Your task to perform on an android device: install app "Google News" Image 0: 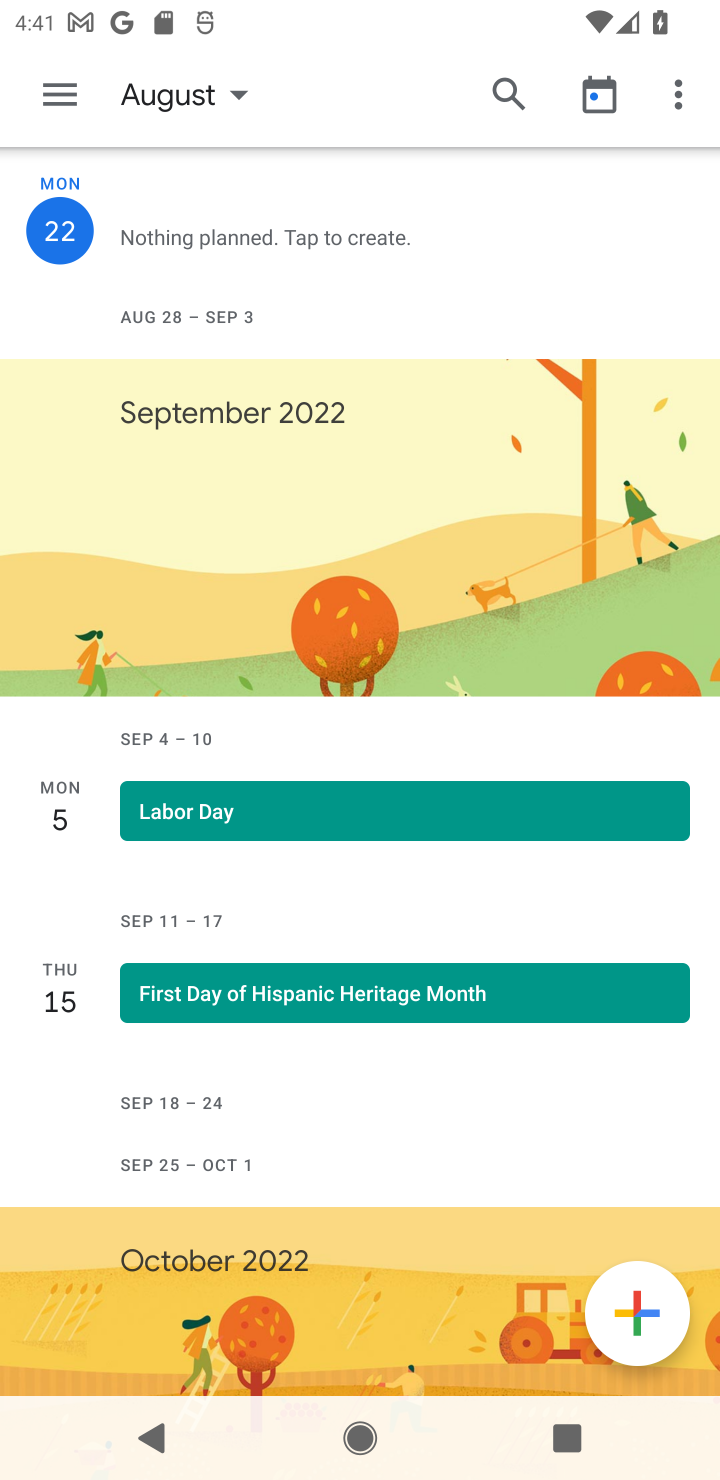
Step 0: press home button
Your task to perform on an android device: install app "Google News" Image 1: 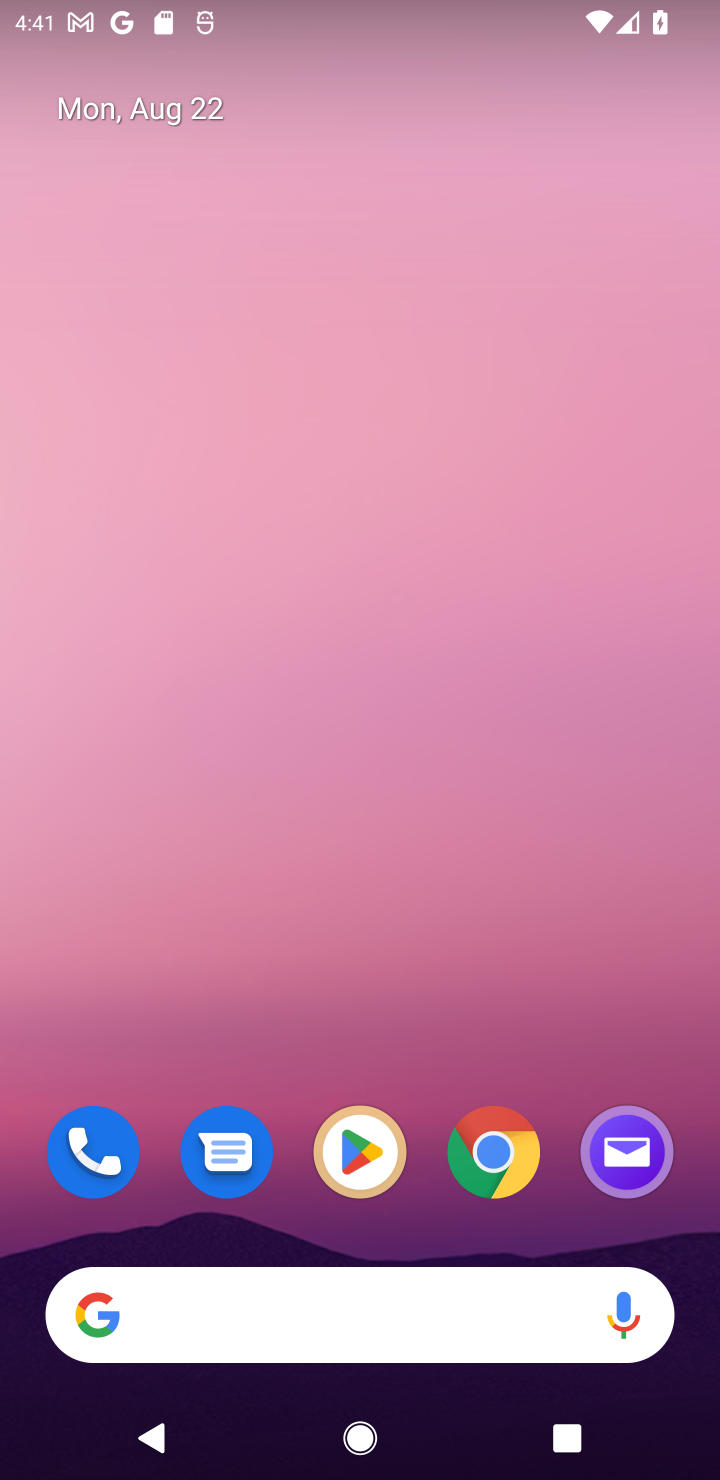
Step 1: click (348, 1176)
Your task to perform on an android device: install app "Google News" Image 2: 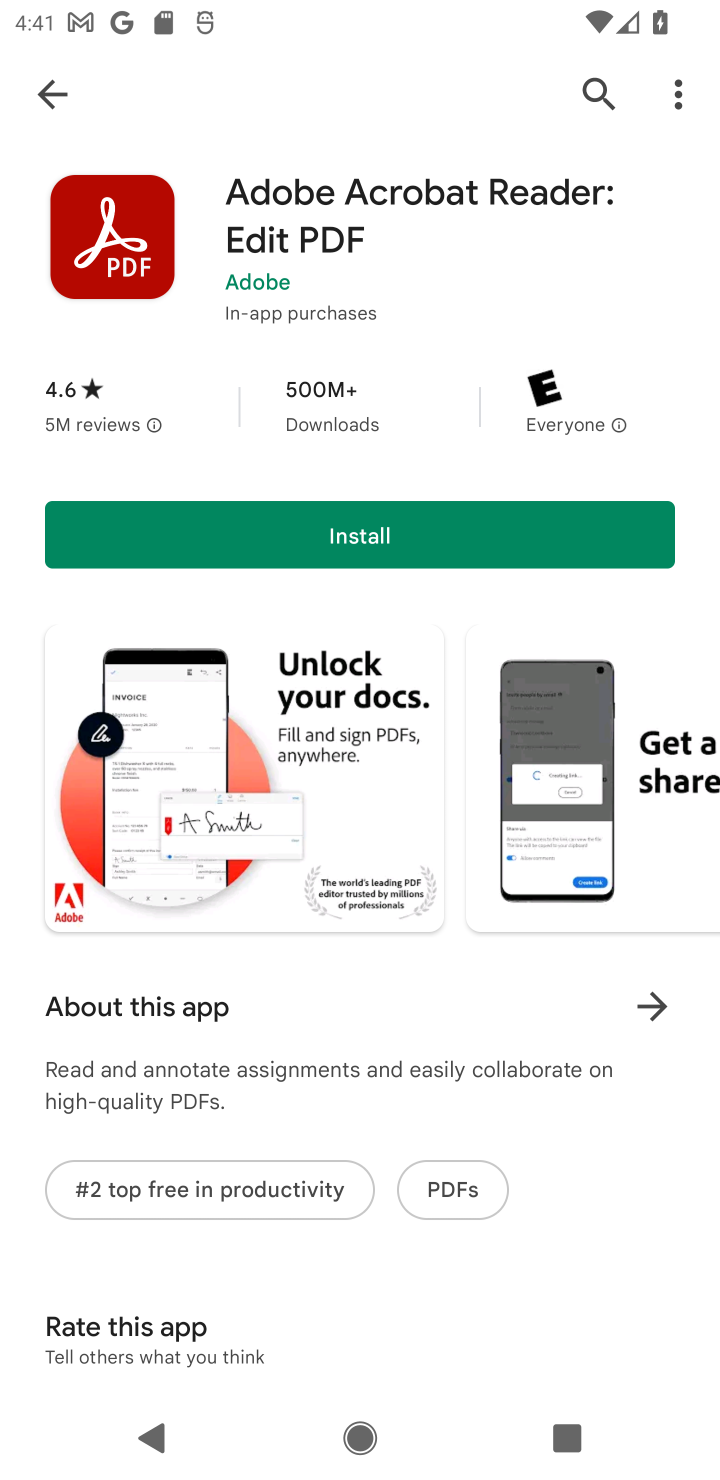
Step 2: click (34, 89)
Your task to perform on an android device: install app "Google News" Image 3: 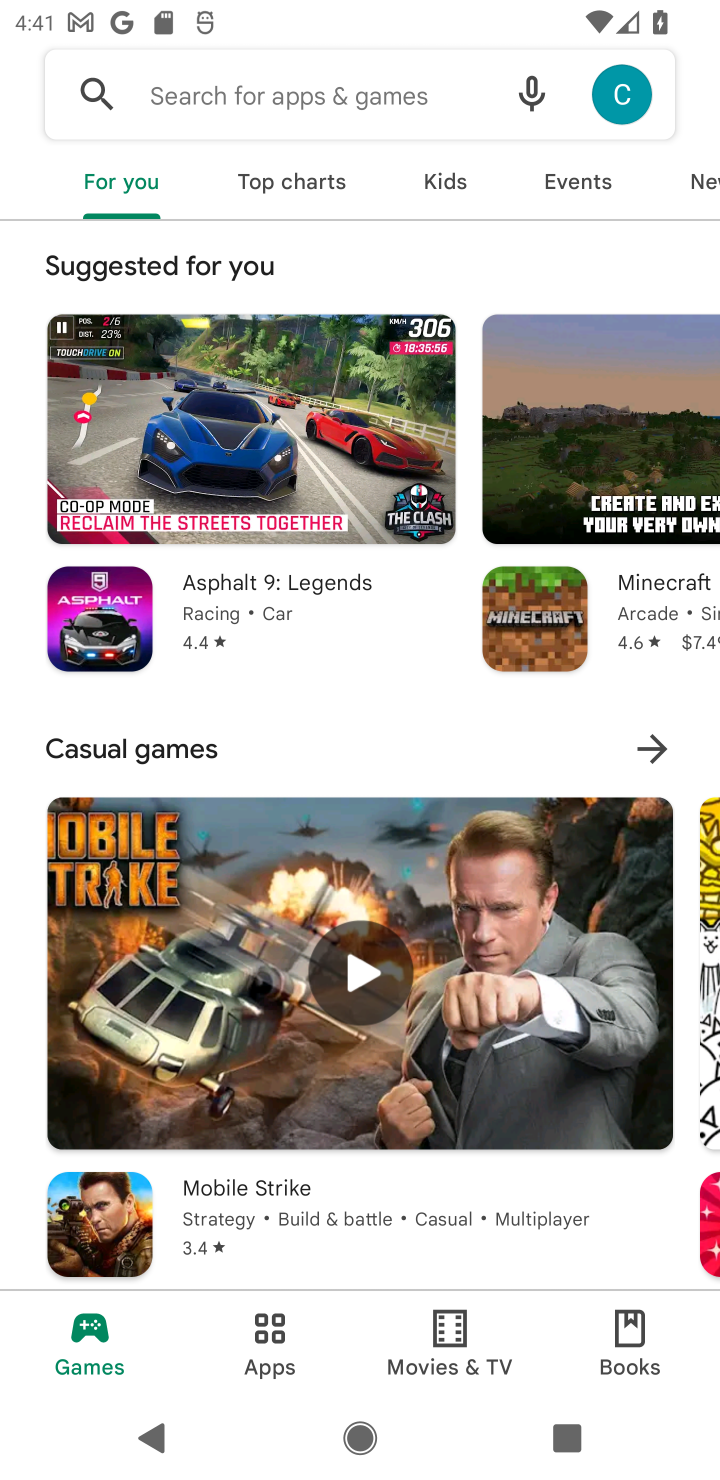
Step 3: click (298, 89)
Your task to perform on an android device: install app "Google News" Image 4: 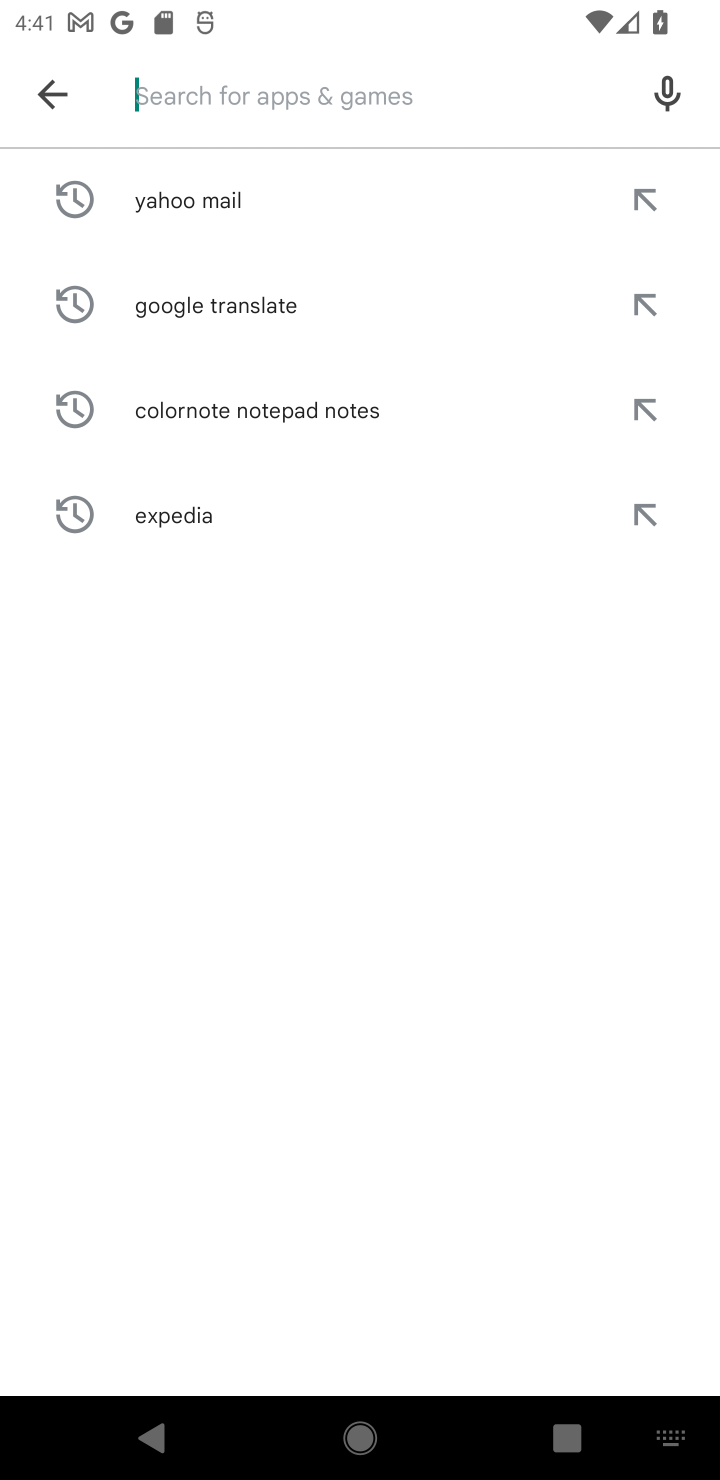
Step 4: type "Google News"
Your task to perform on an android device: install app "Google News" Image 5: 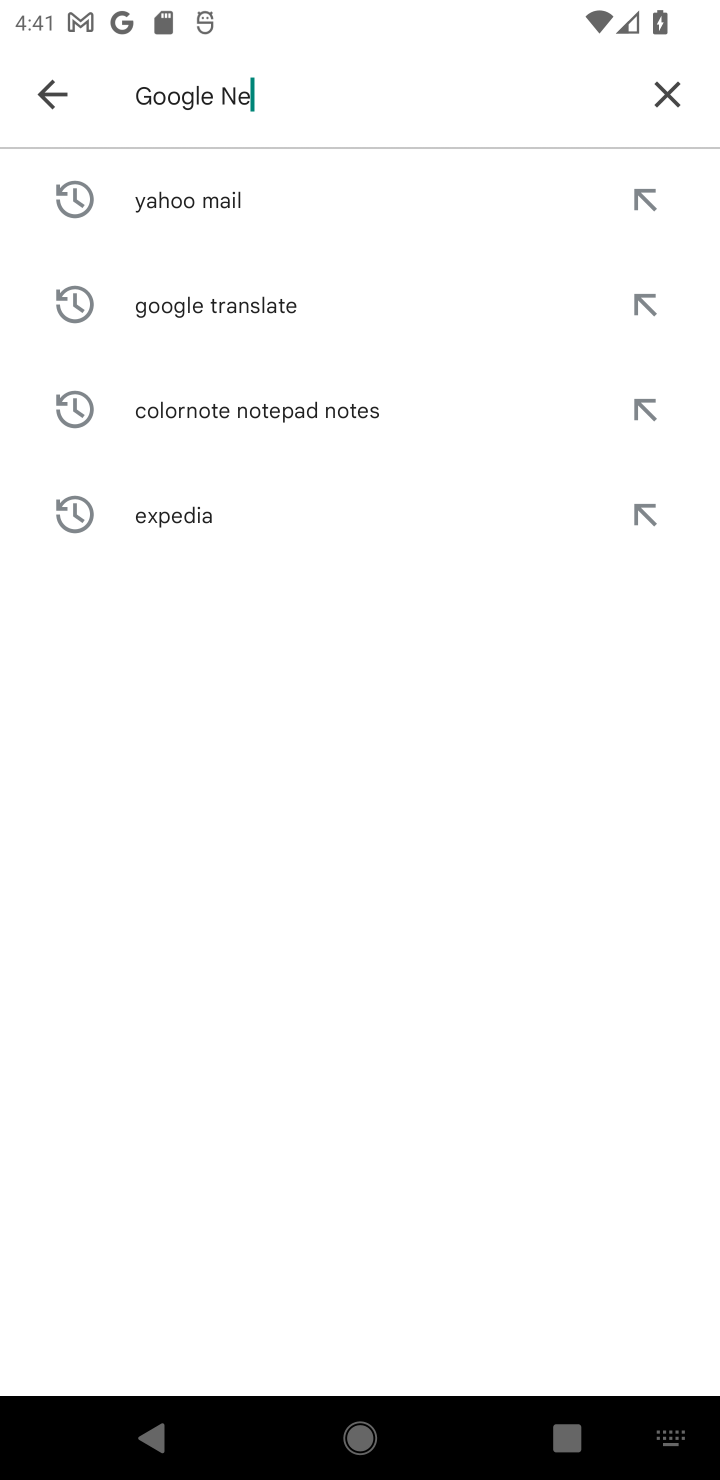
Step 5: type ""
Your task to perform on an android device: install app "Google News" Image 6: 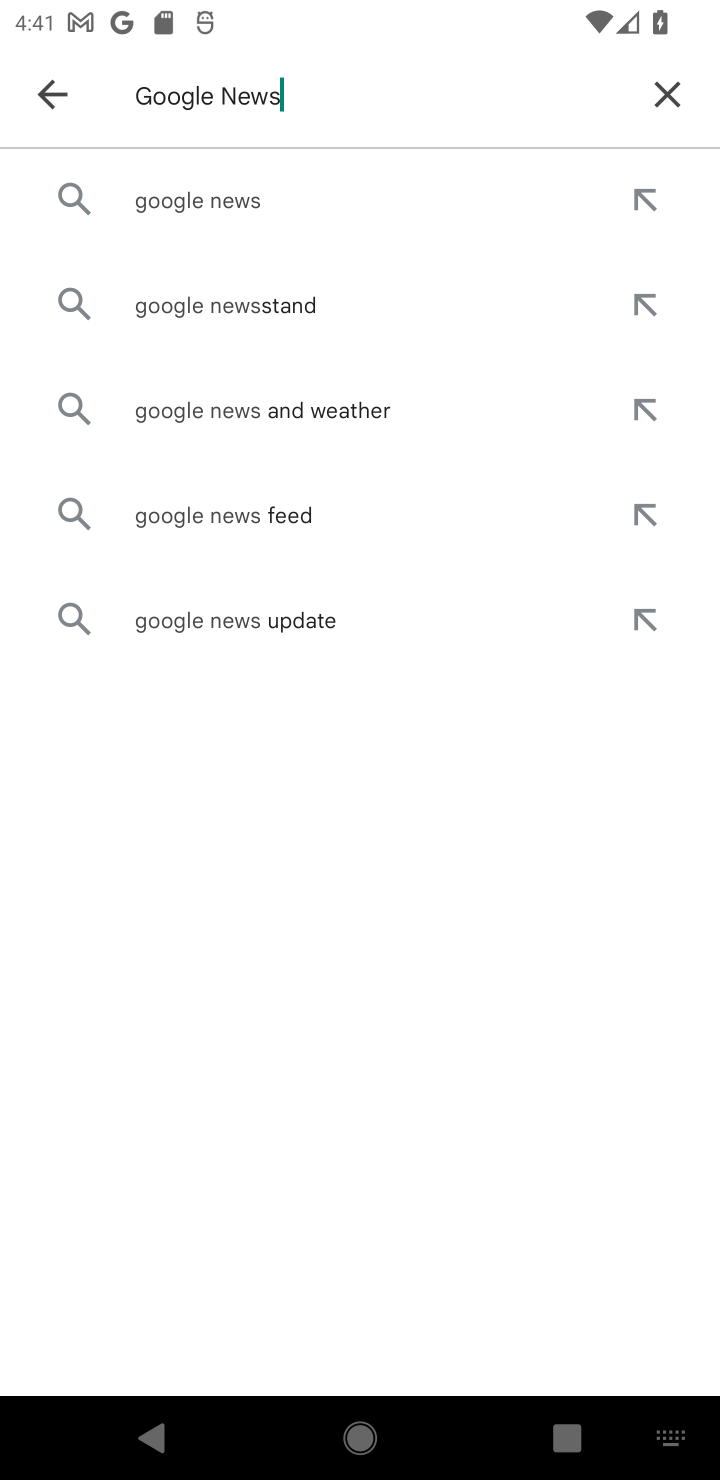
Step 6: click (153, 213)
Your task to perform on an android device: install app "Google News" Image 7: 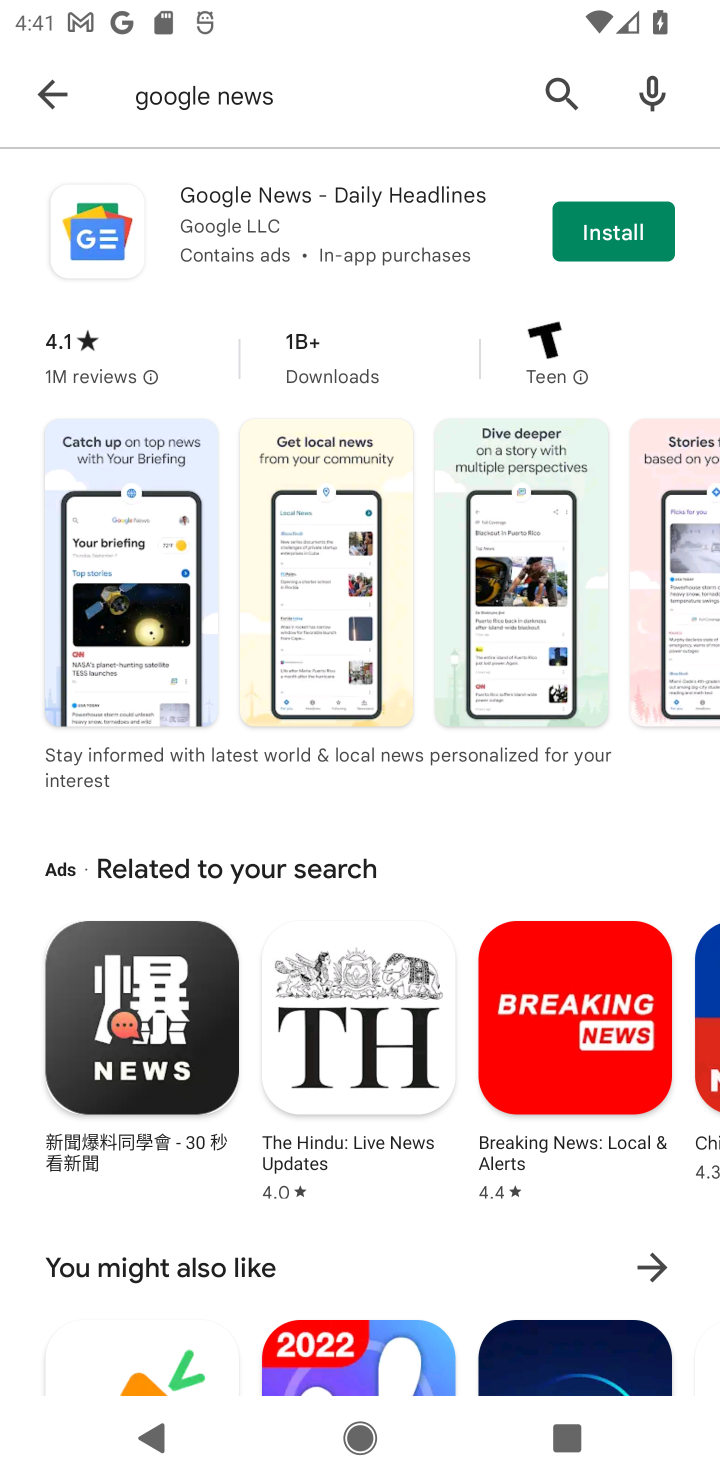
Step 7: click (617, 252)
Your task to perform on an android device: install app "Google News" Image 8: 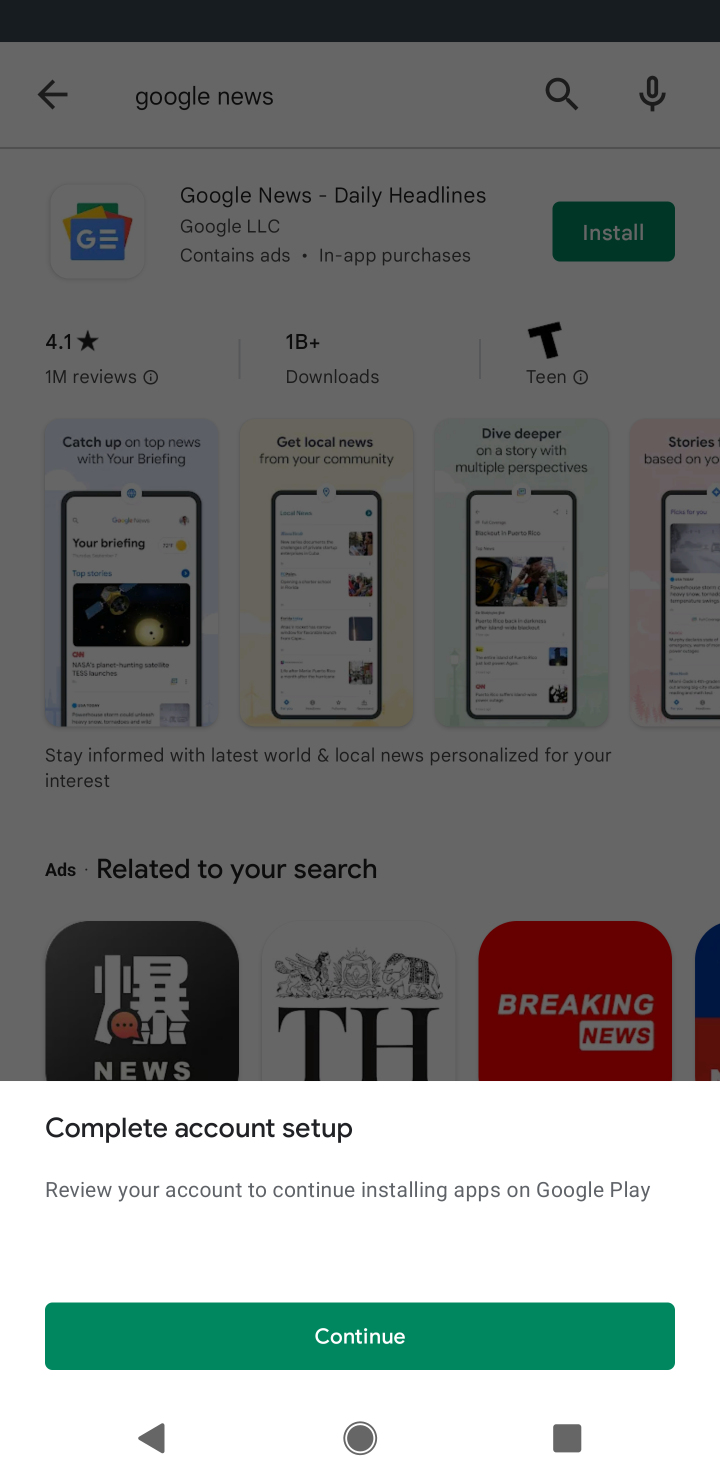
Step 8: click (420, 1315)
Your task to perform on an android device: install app "Google News" Image 9: 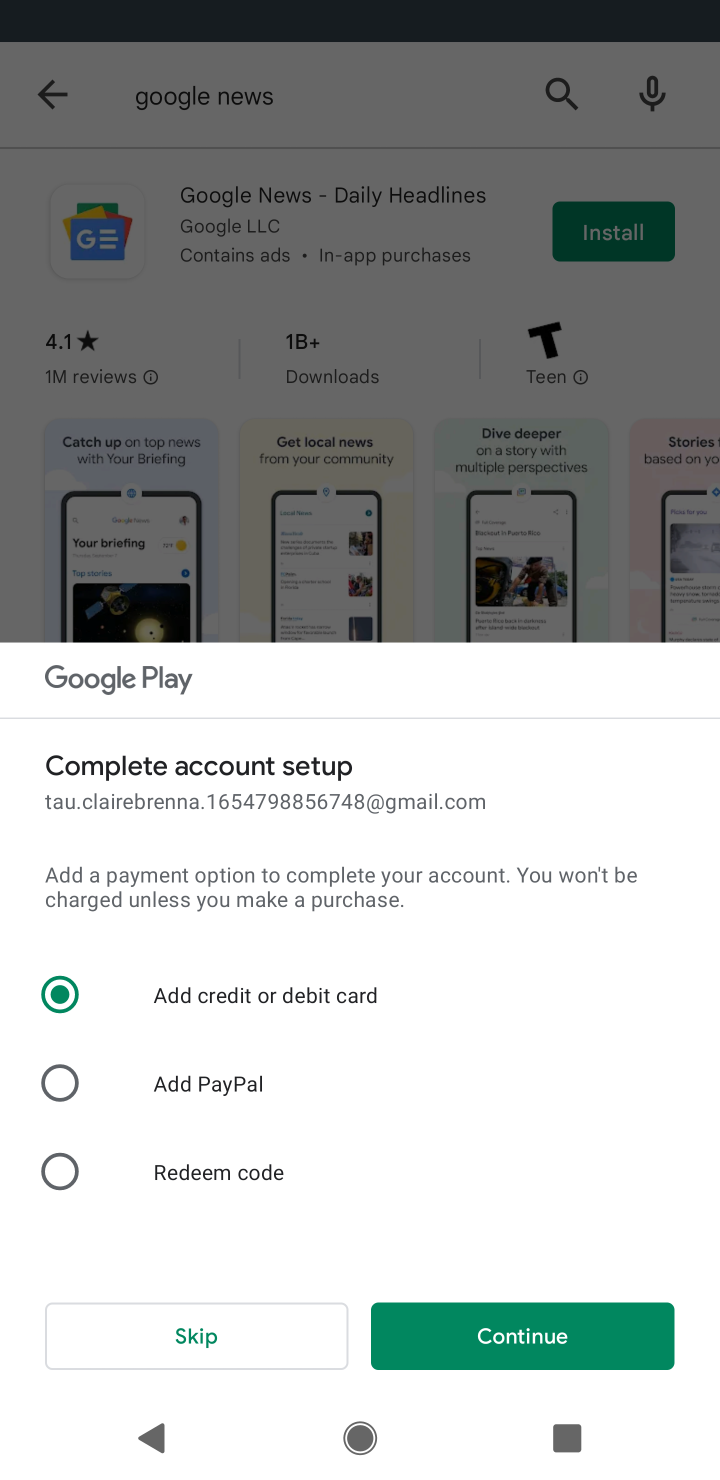
Step 9: click (190, 1340)
Your task to perform on an android device: install app "Google News" Image 10: 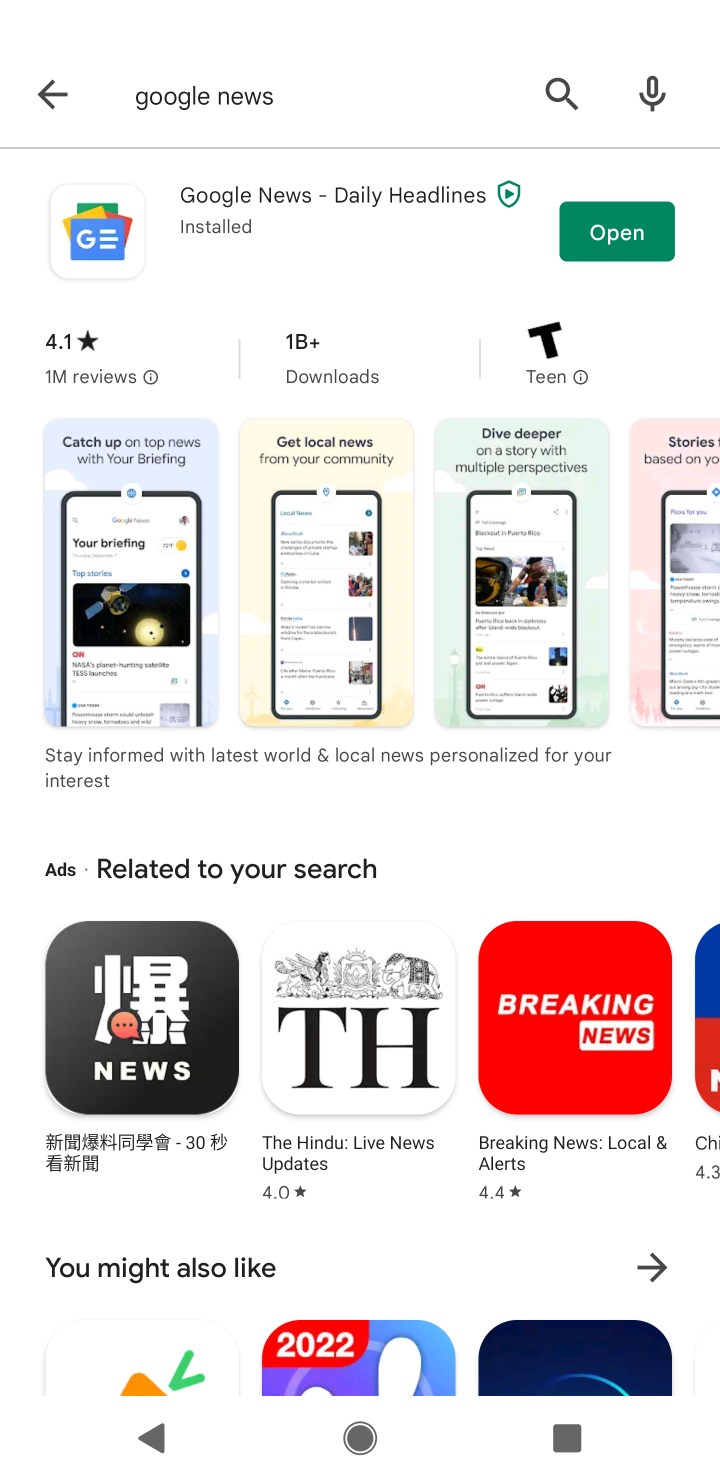
Step 10: click (584, 248)
Your task to perform on an android device: install app "Google News" Image 11: 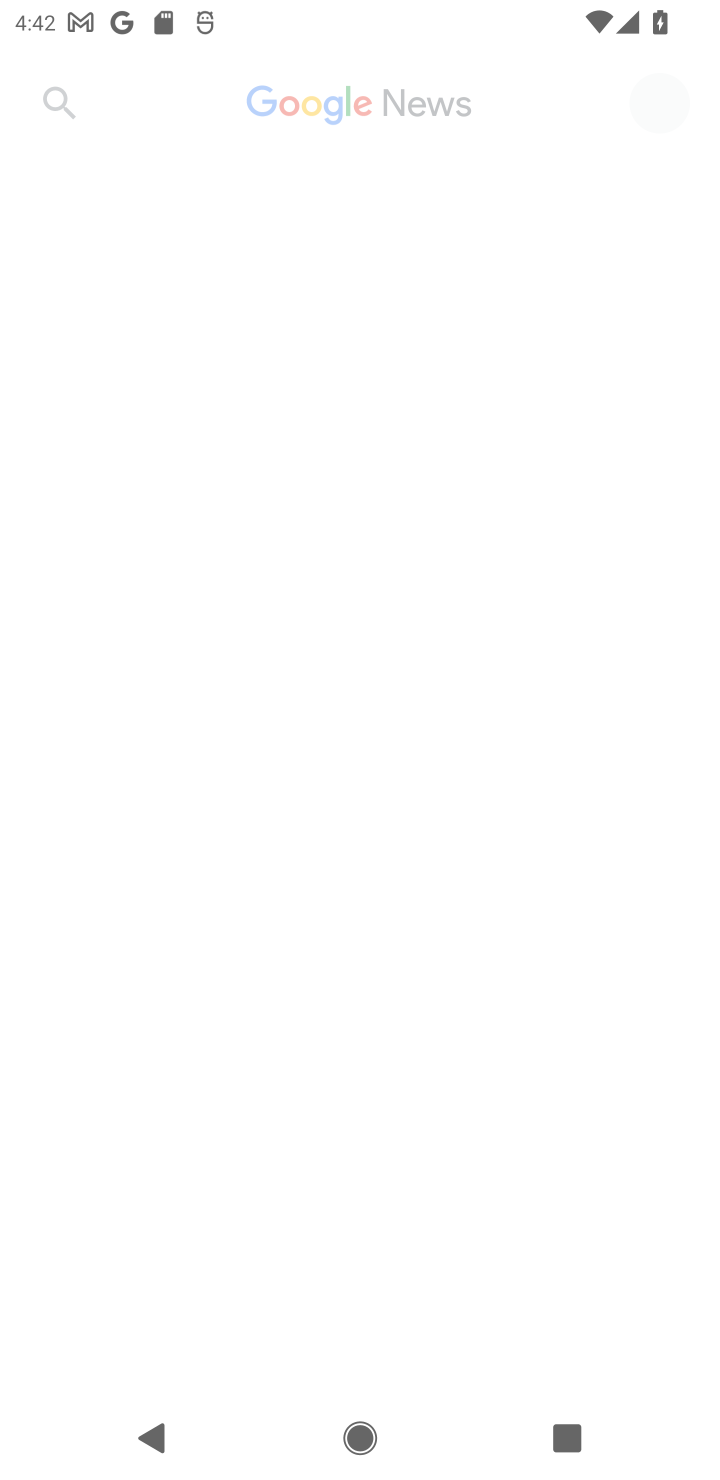
Step 11: task complete